Your task to perform on an android device: allow cookies in the chrome app Image 0: 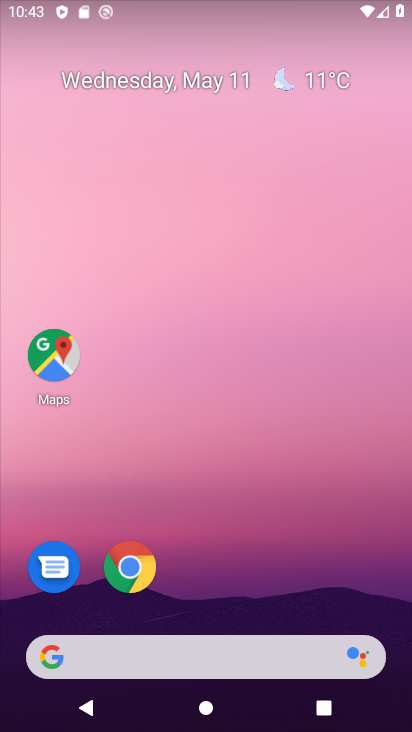
Step 0: drag from (309, 461) to (147, 7)
Your task to perform on an android device: allow cookies in the chrome app Image 1: 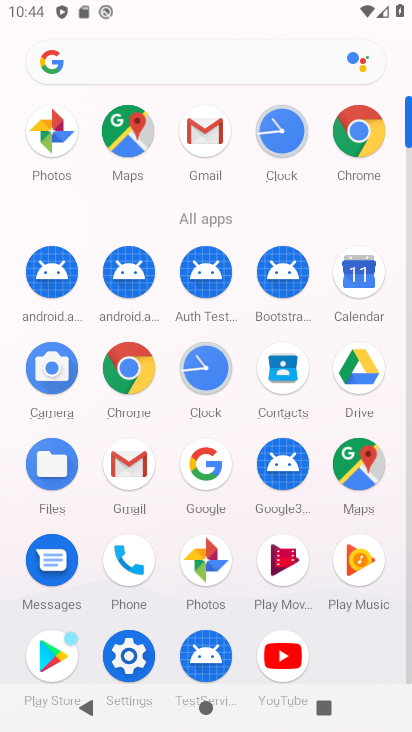
Step 1: click (366, 140)
Your task to perform on an android device: allow cookies in the chrome app Image 2: 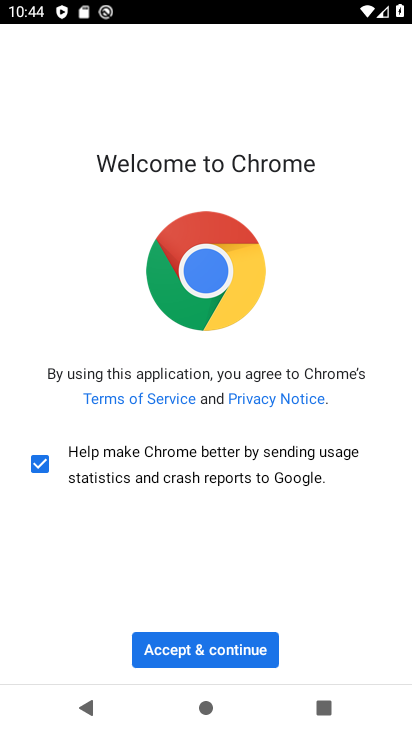
Step 2: click (194, 640)
Your task to perform on an android device: allow cookies in the chrome app Image 3: 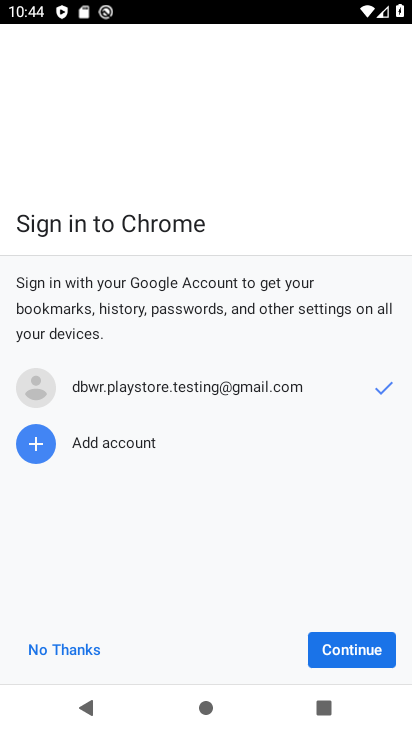
Step 3: click (102, 662)
Your task to perform on an android device: allow cookies in the chrome app Image 4: 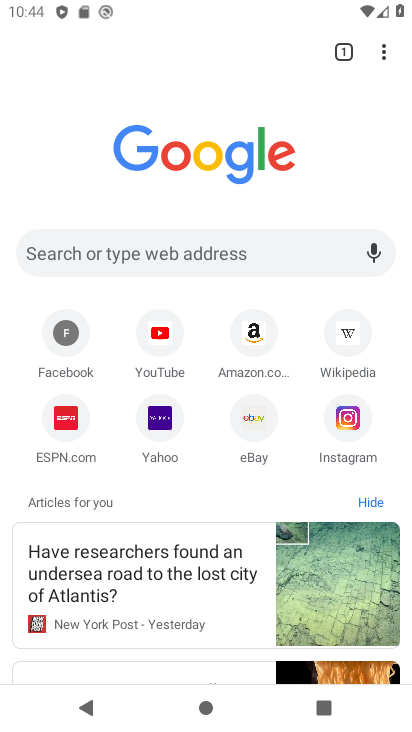
Step 4: drag from (385, 47) to (205, 445)
Your task to perform on an android device: allow cookies in the chrome app Image 5: 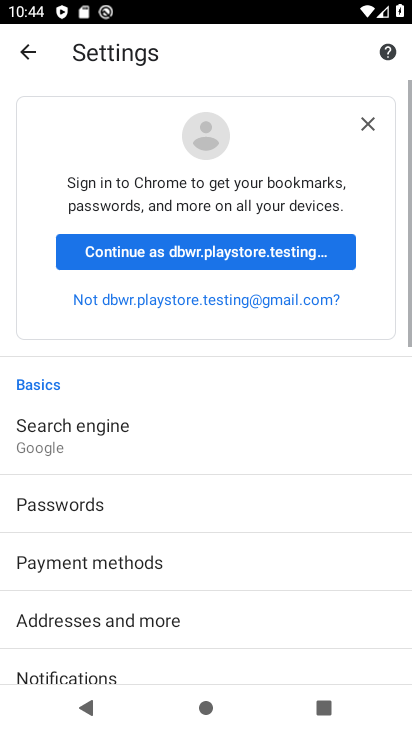
Step 5: drag from (200, 618) to (271, 198)
Your task to perform on an android device: allow cookies in the chrome app Image 6: 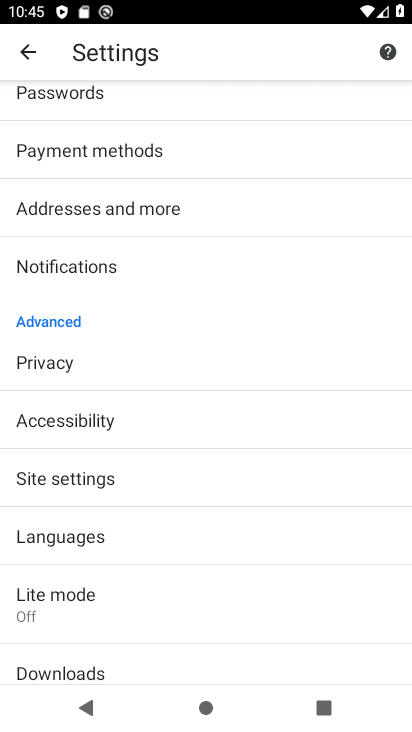
Step 6: click (97, 483)
Your task to perform on an android device: allow cookies in the chrome app Image 7: 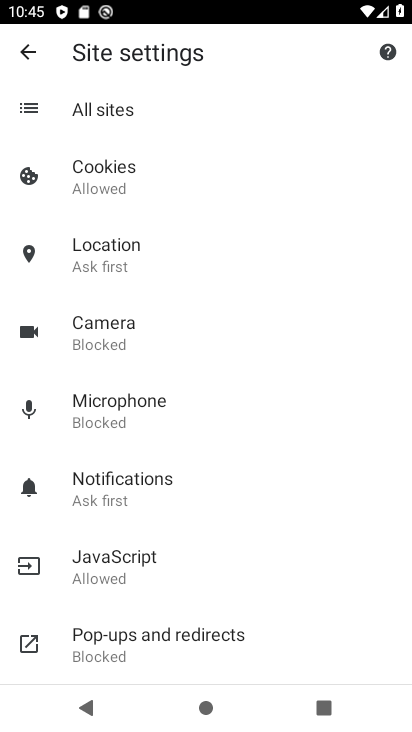
Step 7: drag from (162, 601) to (209, 188)
Your task to perform on an android device: allow cookies in the chrome app Image 8: 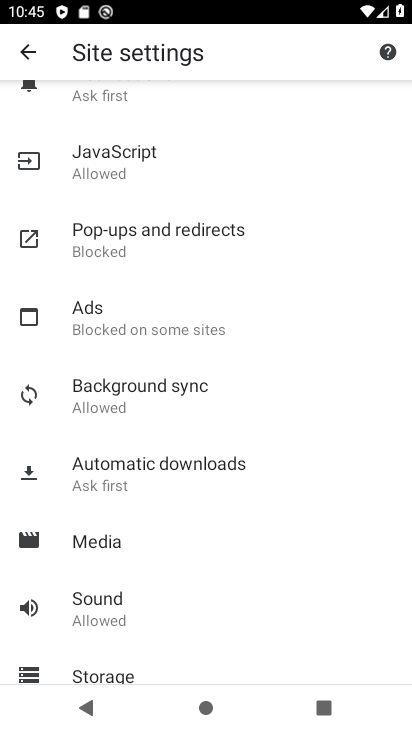
Step 8: drag from (180, 537) to (206, 146)
Your task to perform on an android device: allow cookies in the chrome app Image 9: 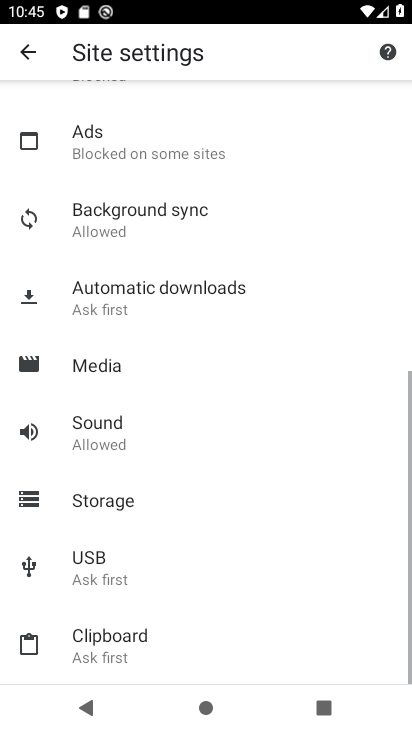
Step 9: drag from (201, 184) to (151, 581)
Your task to perform on an android device: allow cookies in the chrome app Image 10: 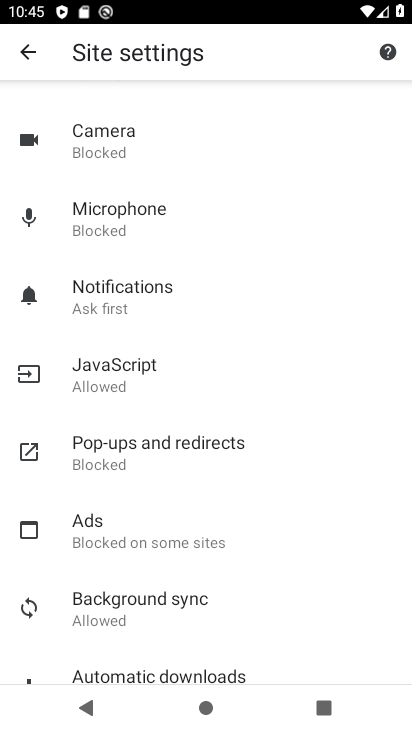
Step 10: drag from (150, 239) to (121, 621)
Your task to perform on an android device: allow cookies in the chrome app Image 11: 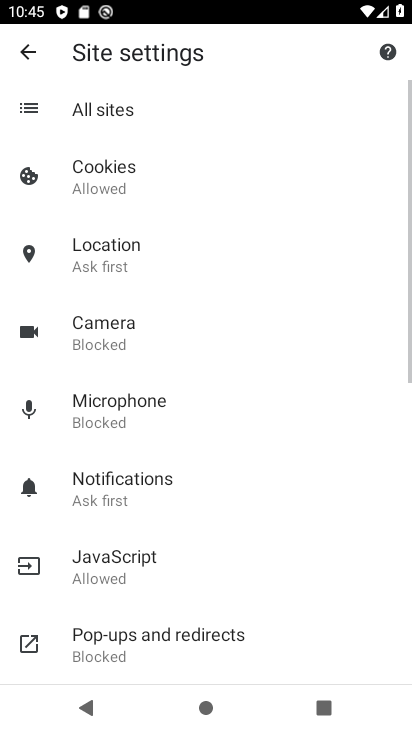
Step 11: click (122, 176)
Your task to perform on an android device: allow cookies in the chrome app Image 12: 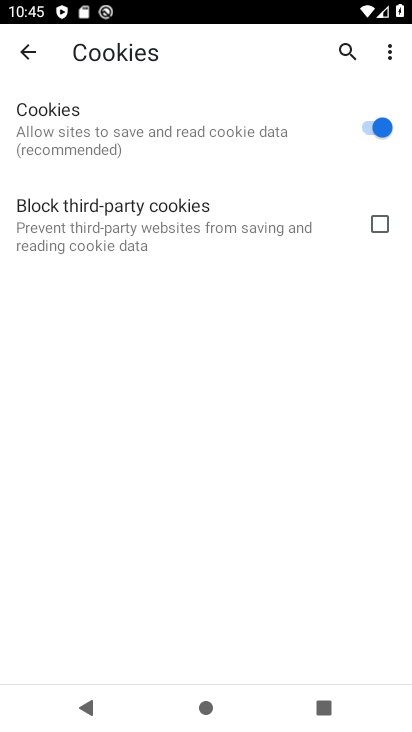
Step 12: task complete